Your task to perform on an android device: delete location history Image 0: 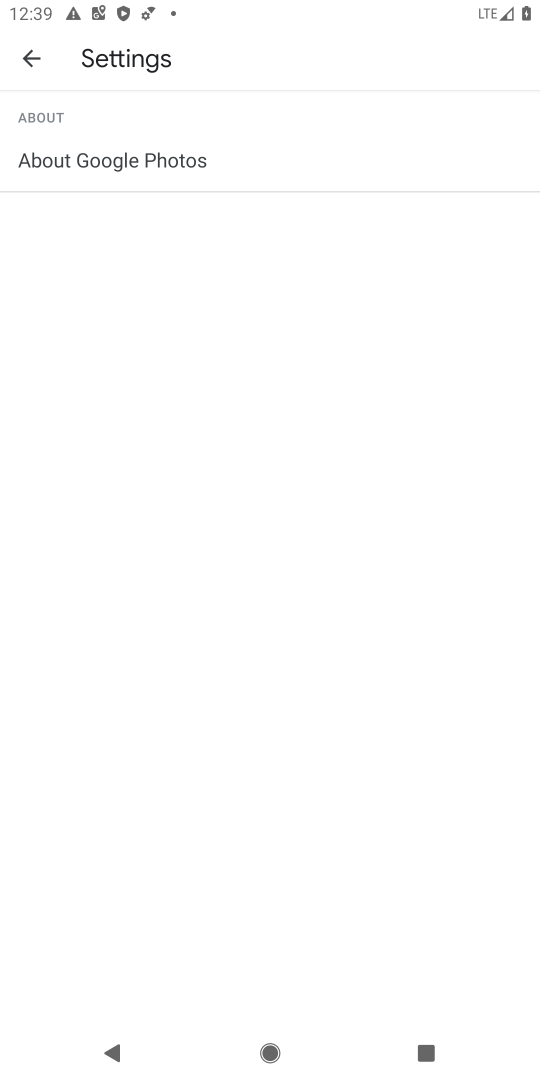
Step 0: press back button
Your task to perform on an android device: delete location history Image 1: 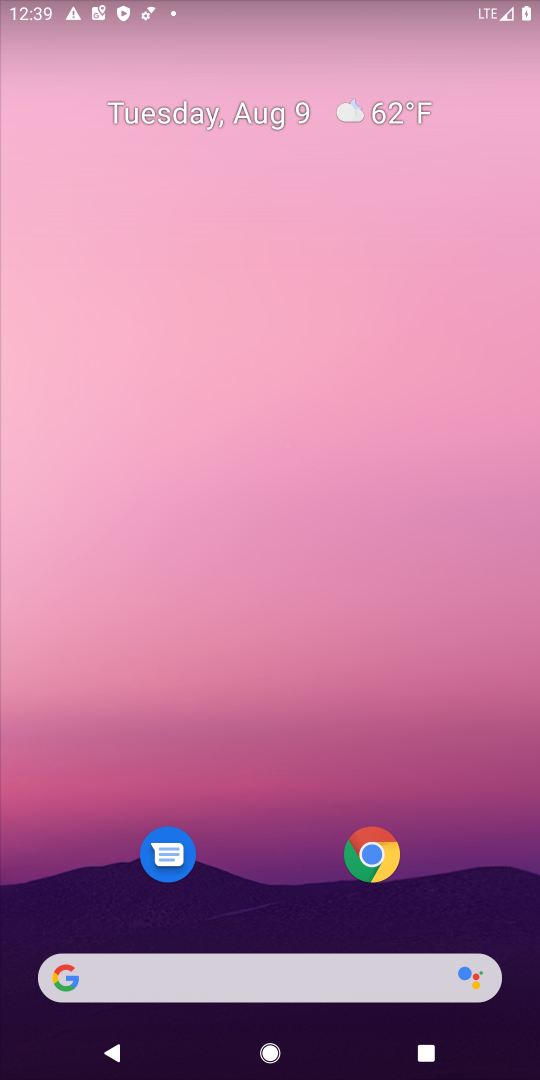
Step 1: drag from (280, 930) to (443, 4)
Your task to perform on an android device: delete location history Image 2: 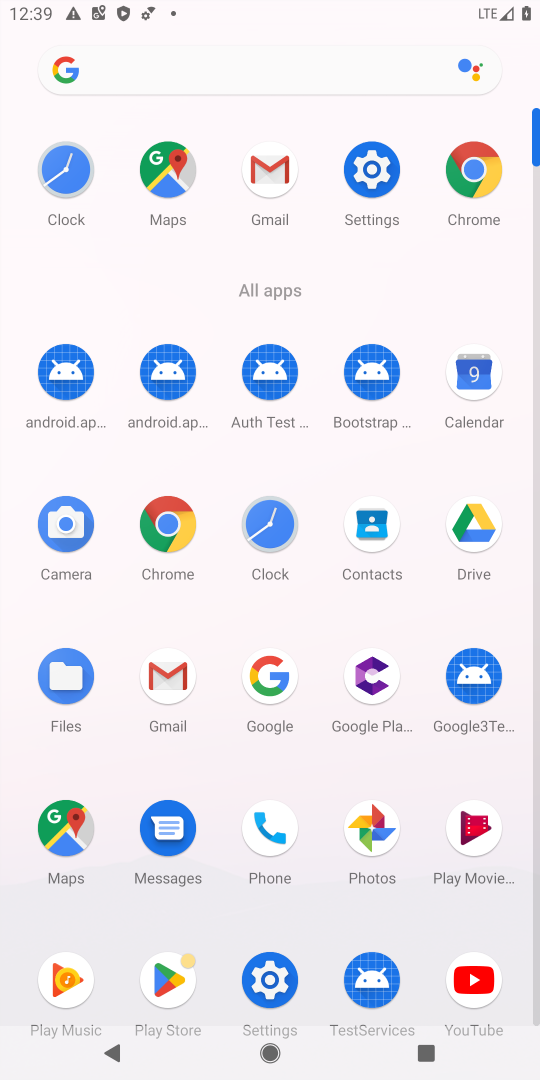
Step 2: click (146, 170)
Your task to perform on an android device: delete location history Image 3: 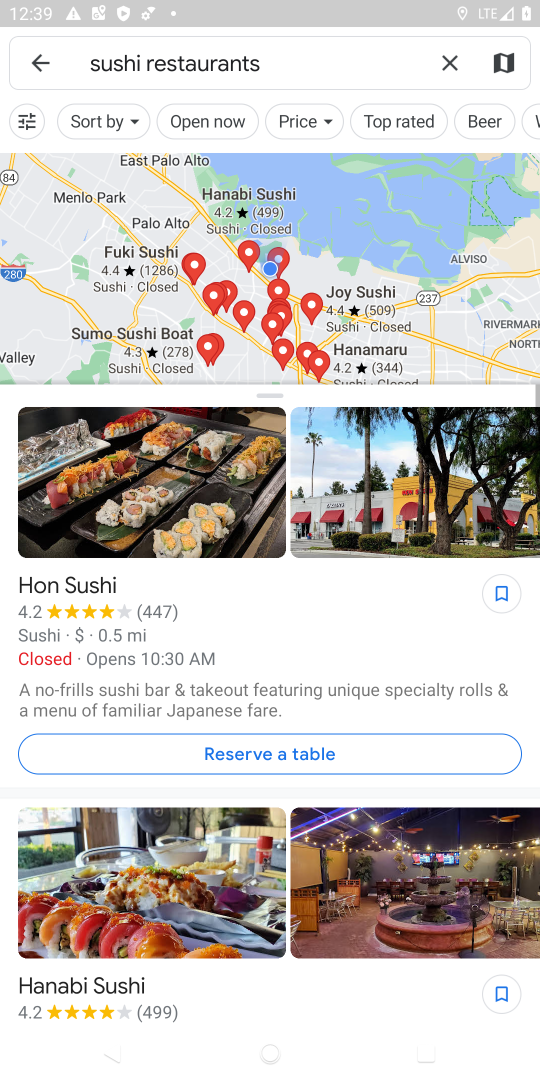
Step 3: click (45, 53)
Your task to perform on an android device: delete location history Image 4: 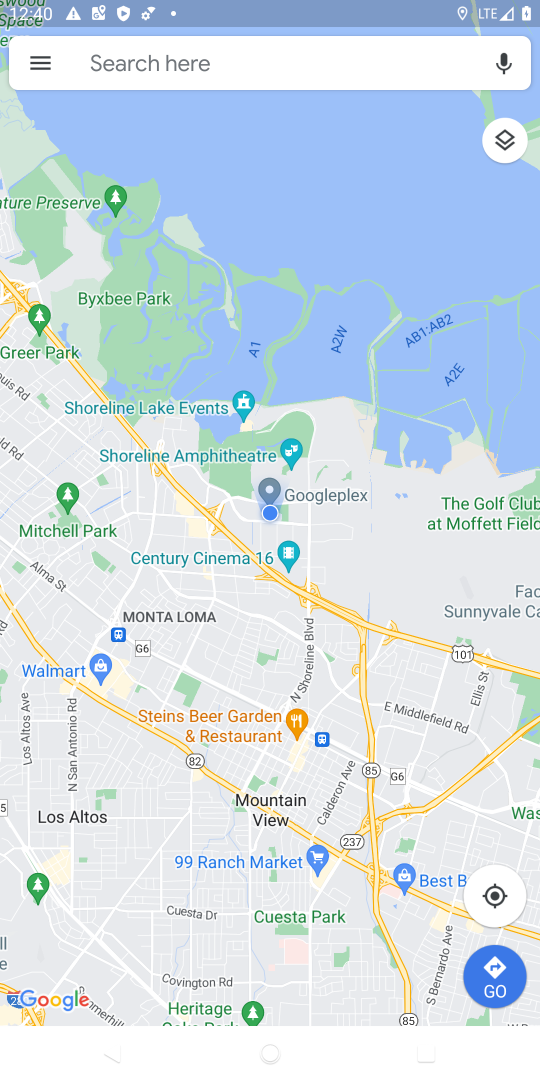
Step 4: click (45, 54)
Your task to perform on an android device: delete location history Image 5: 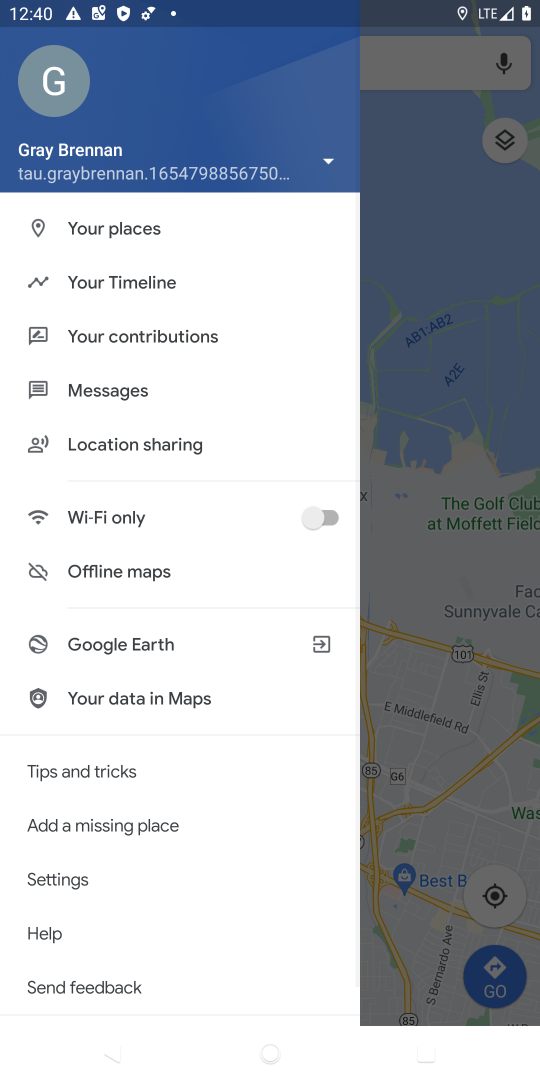
Step 5: click (134, 280)
Your task to perform on an android device: delete location history Image 6: 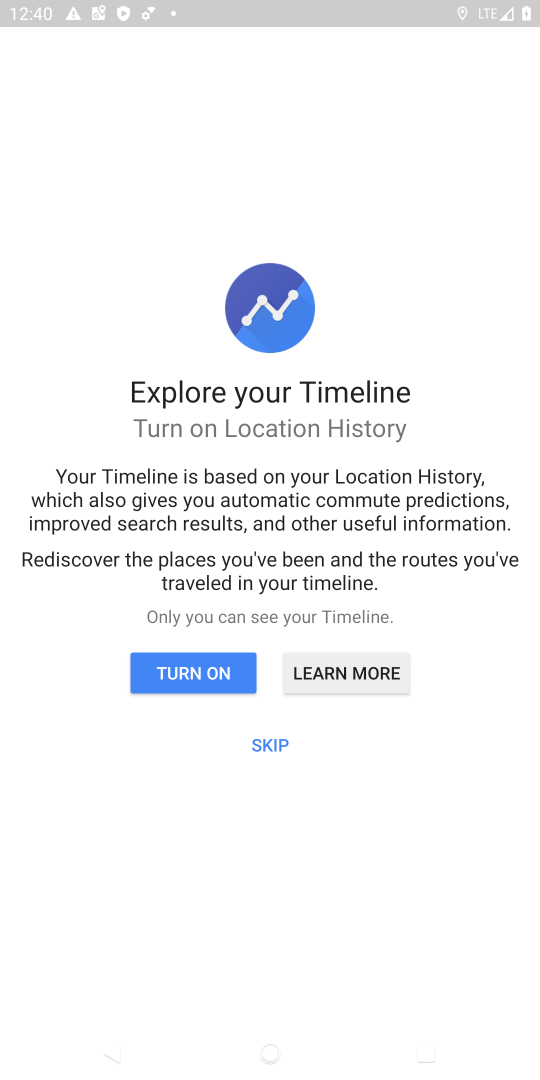
Step 6: click (258, 734)
Your task to perform on an android device: delete location history Image 7: 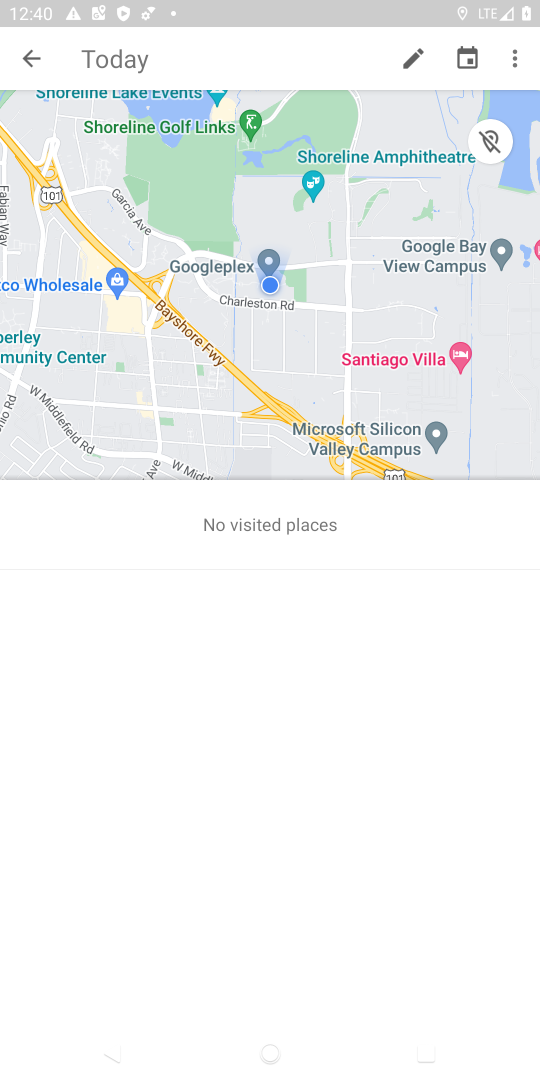
Step 7: click (514, 22)
Your task to perform on an android device: delete location history Image 8: 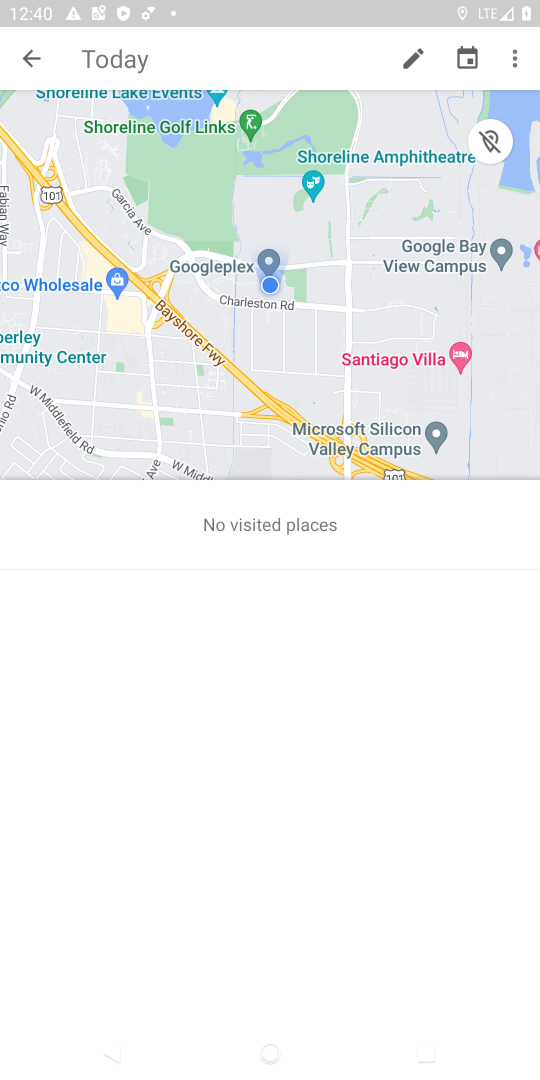
Step 8: click (514, 71)
Your task to perform on an android device: delete location history Image 9: 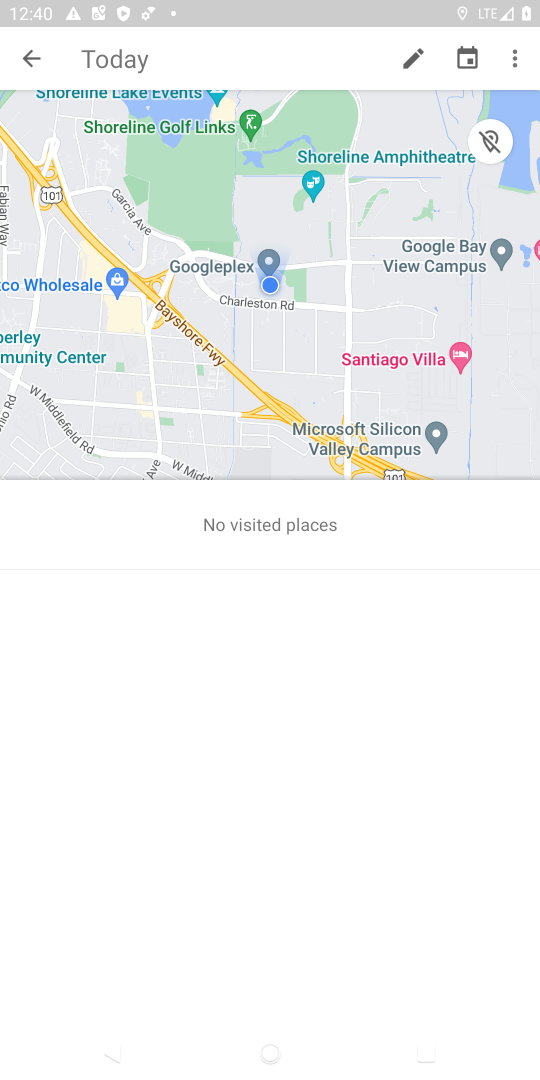
Step 9: click (514, 70)
Your task to perform on an android device: delete location history Image 10: 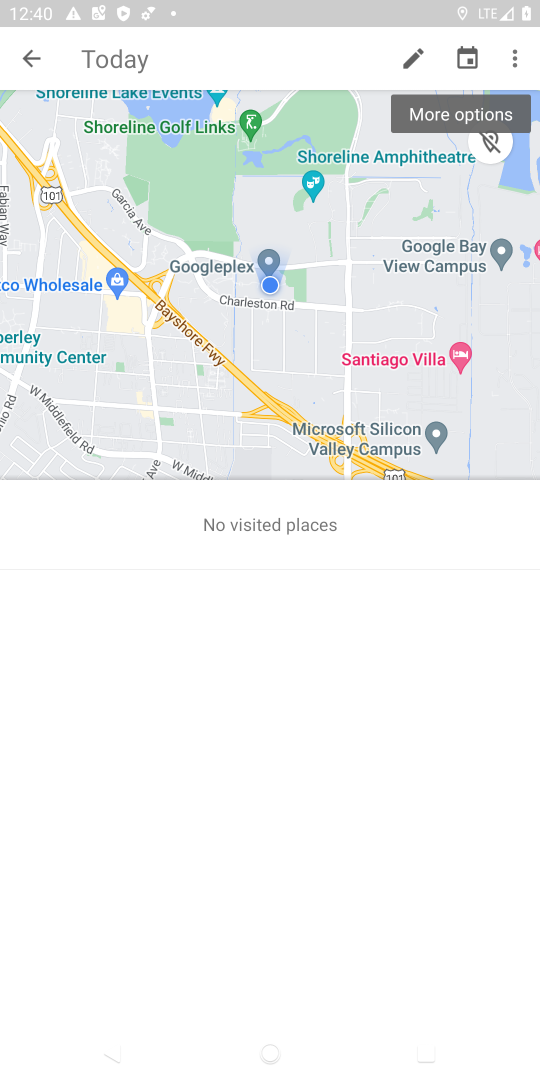
Step 10: click (519, 60)
Your task to perform on an android device: delete location history Image 11: 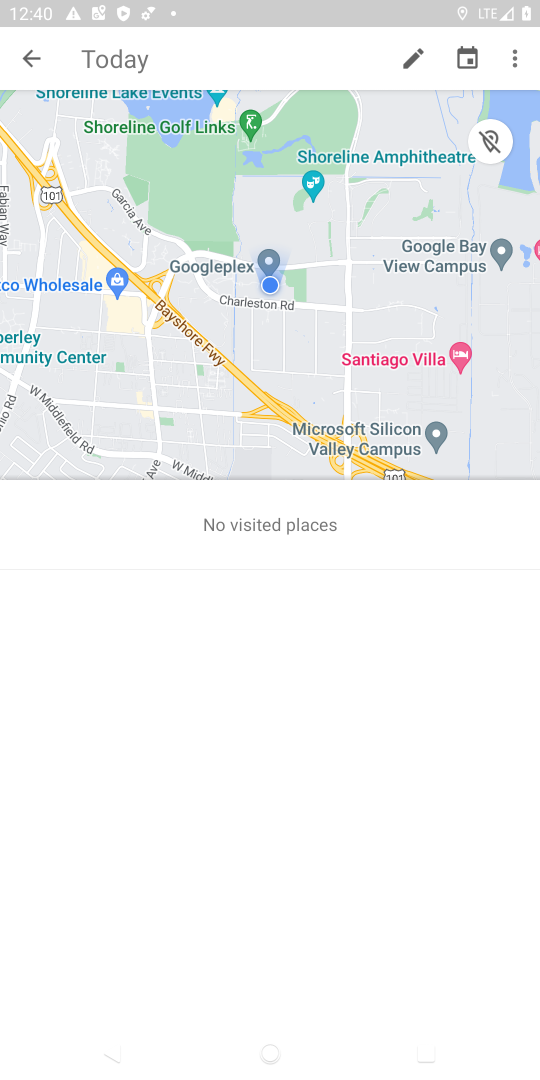
Step 11: click (529, 56)
Your task to perform on an android device: delete location history Image 12: 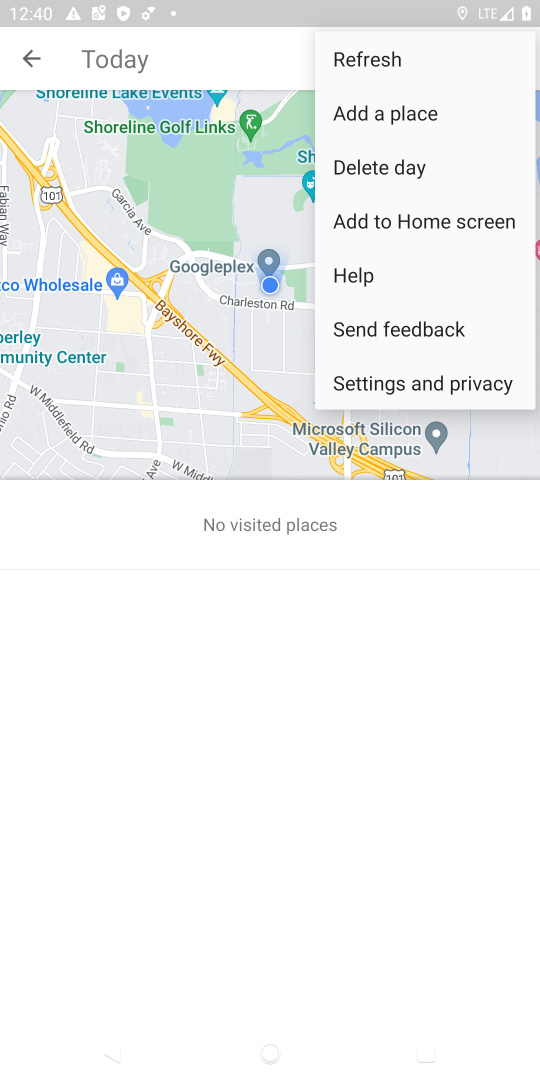
Step 12: click (391, 388)
Your task to perform on an android device: delete location history Image 13: 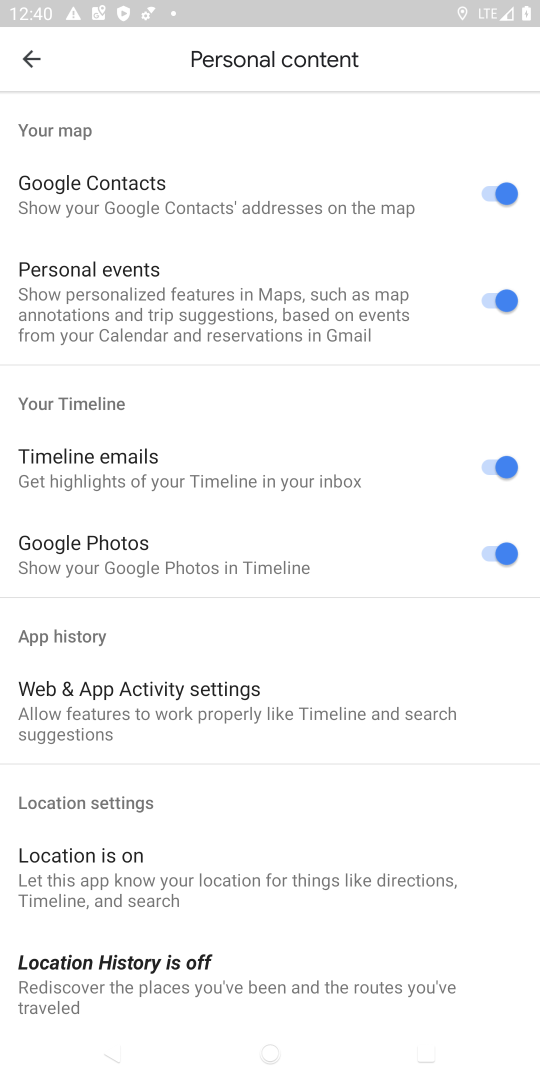
Step 13: drag from (155, 878) to (294, 99)
Your task to perform on an android device: delete location history Image 14: 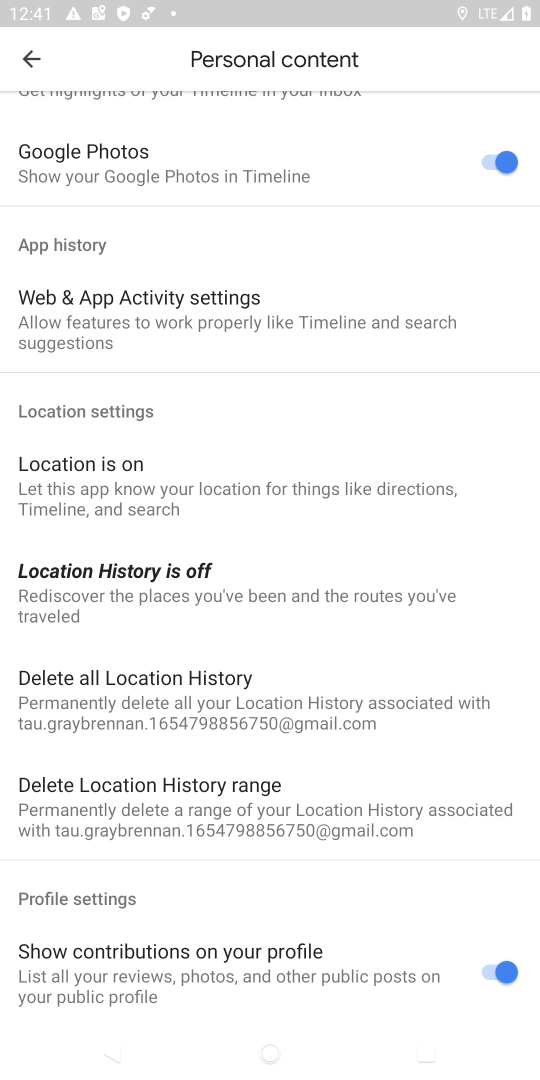
Step 14: click (186, 685)
Your task to perform on an android device: delete location history Image 15: 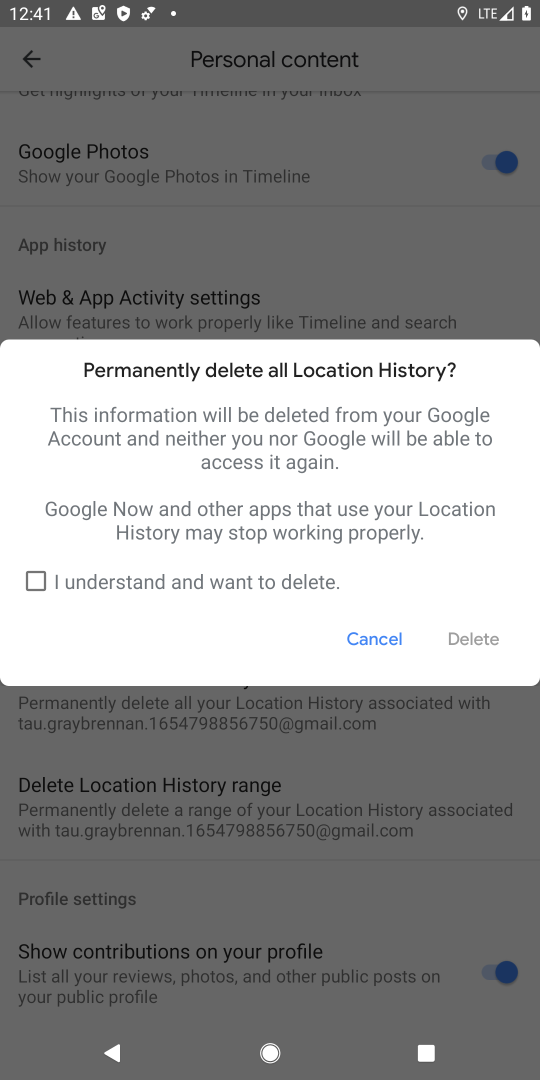
Step 15: click (103, 580)
Your task to perform on an android device: delete location history Image 16: 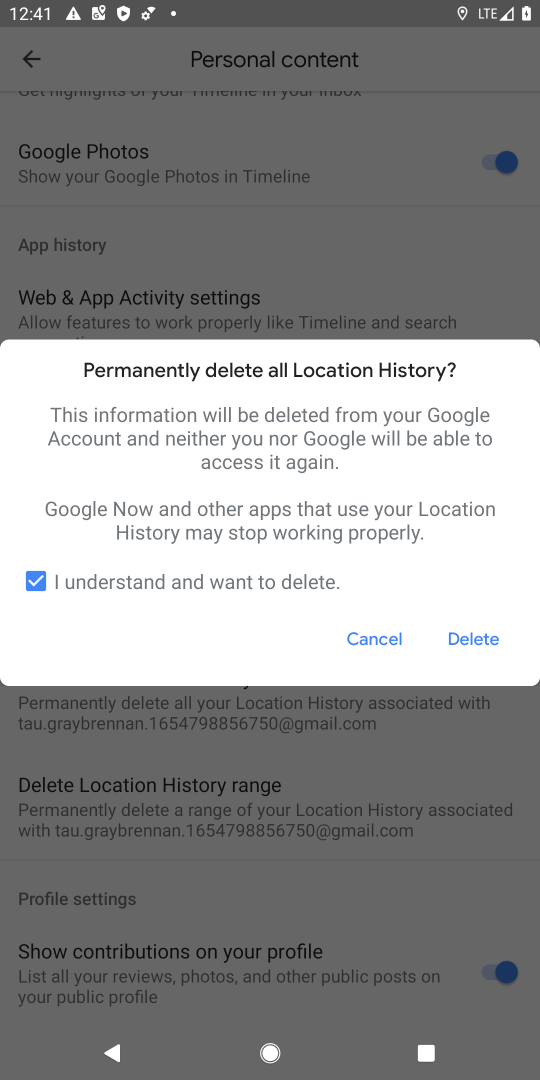
Step 16: click (471, 626)
Your task to perform on an android device: delete location history Image 17: 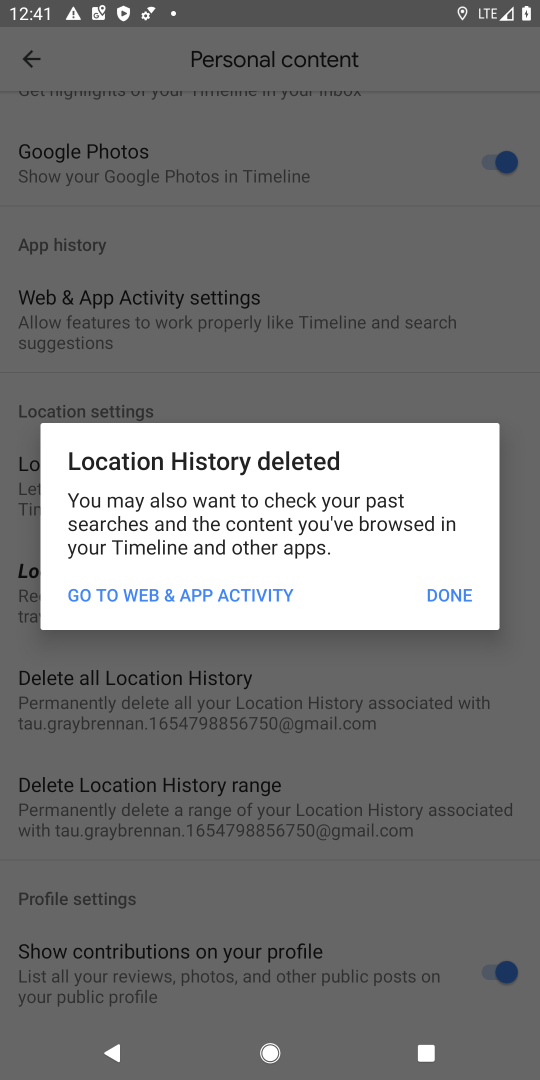
Step 17: click (442, 587)
Your task to perform on an android device: delete location history Image 18: 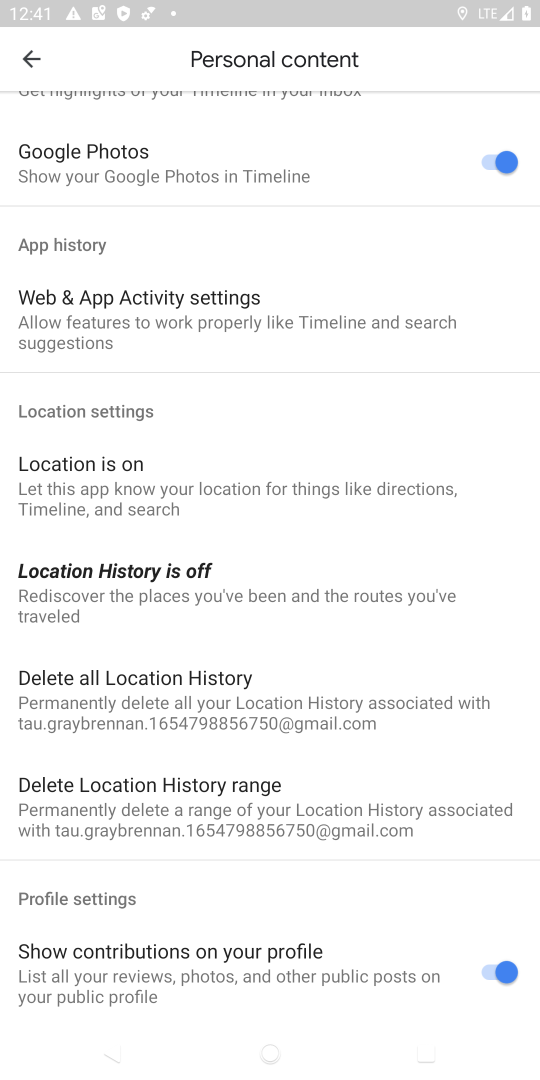
Step 18: task complete